Your task to perform on an android device: Check the weather Image 0: 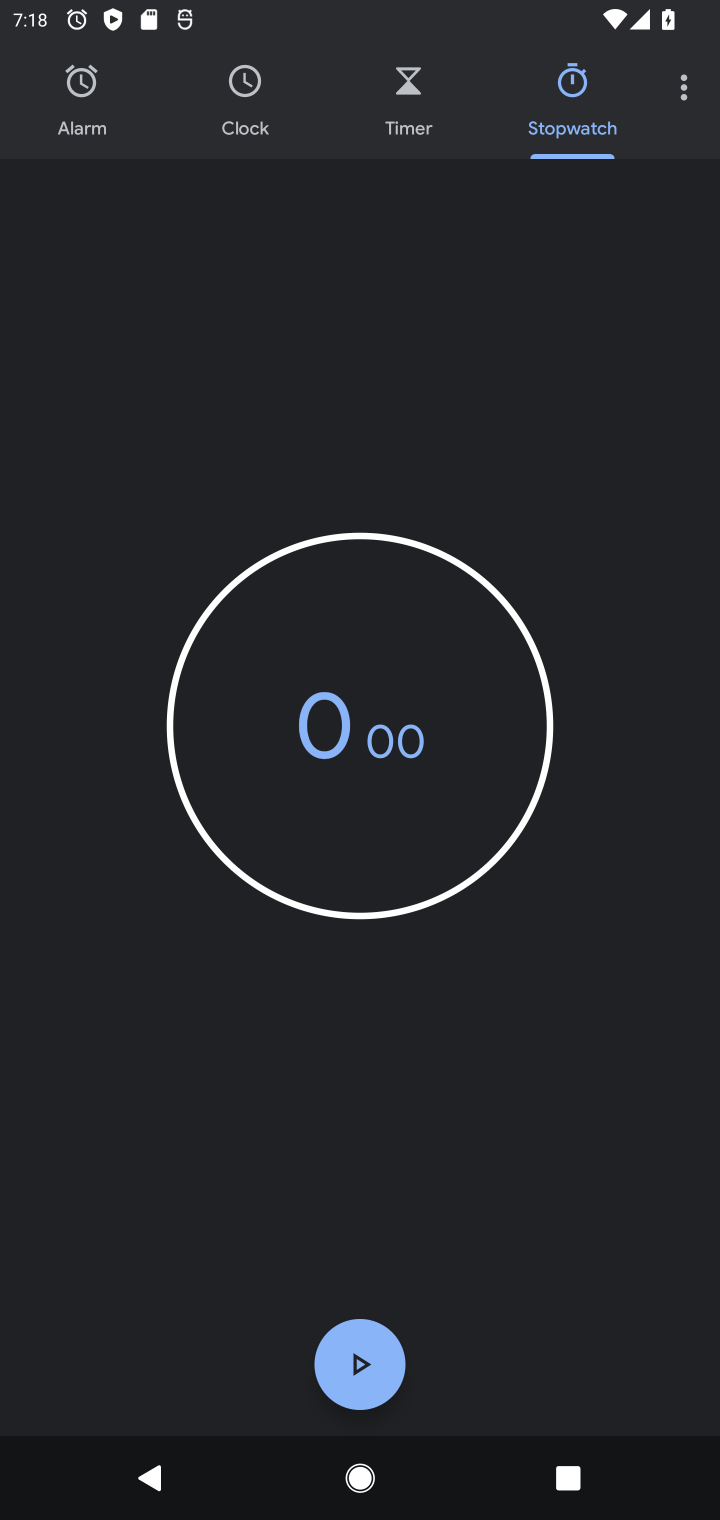
Step 0: press home button
Your task to perform on an android device: Check the weather Image 1: 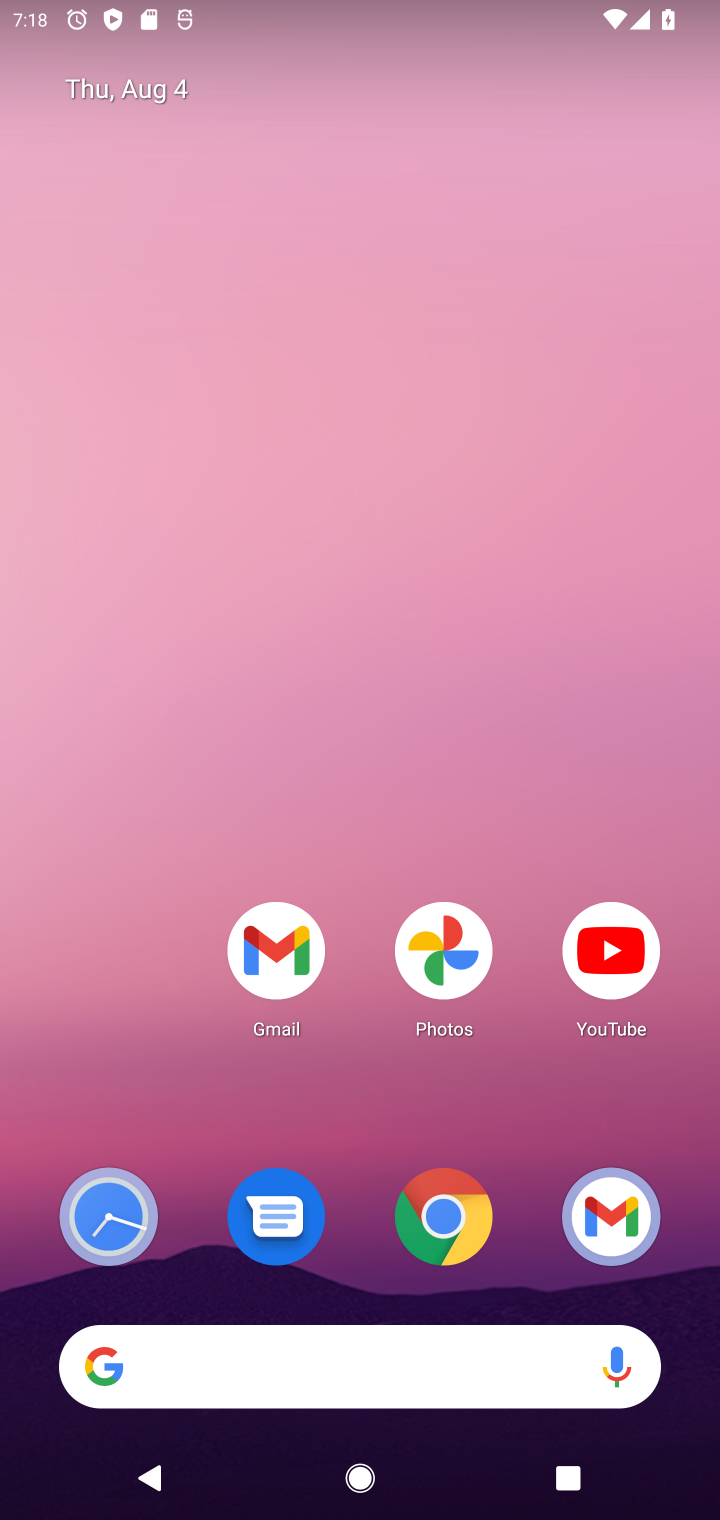
Step 1: click (398, 1353)
Your task to perform on an android device: Check the weather Image 2: 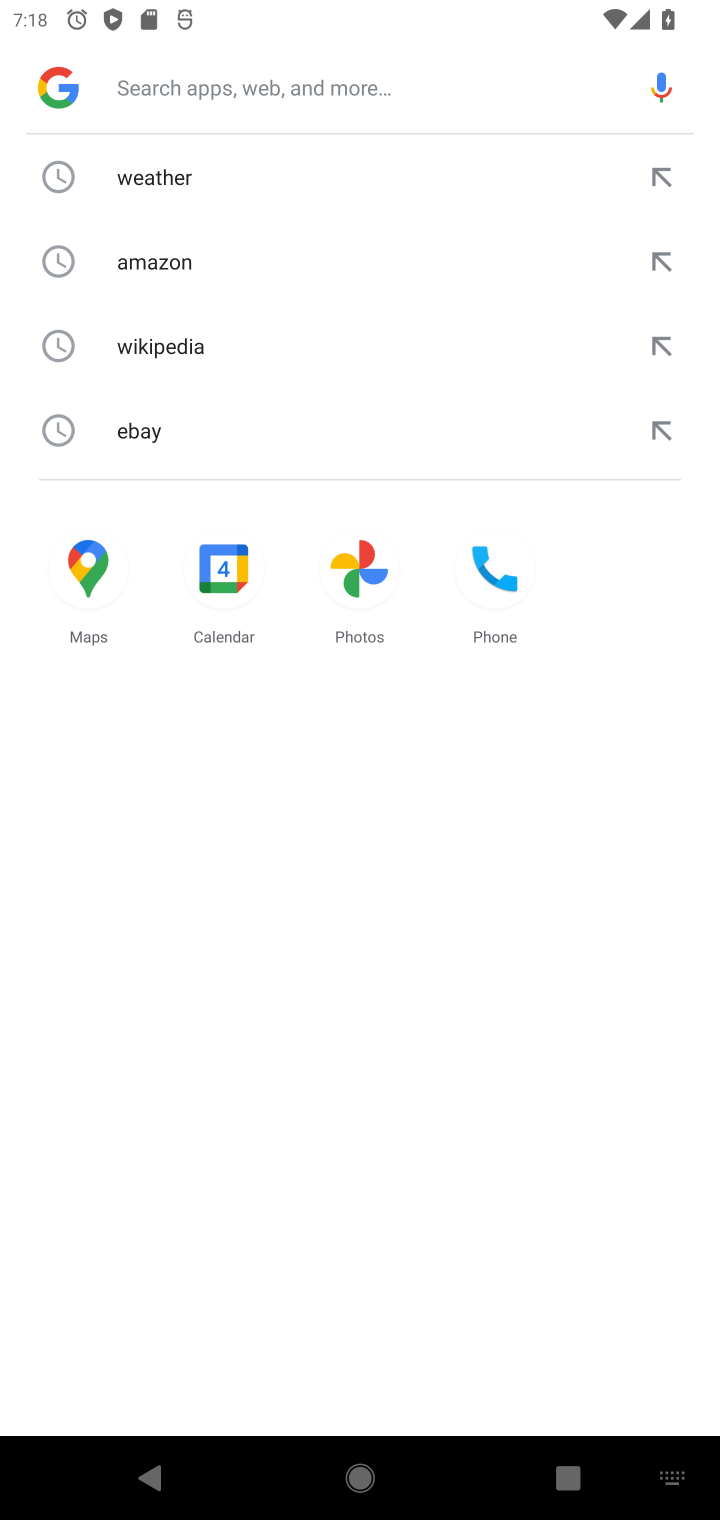
Step 2: click (268, 165)
Your task to perform on an android device: Check the weather Image 3: 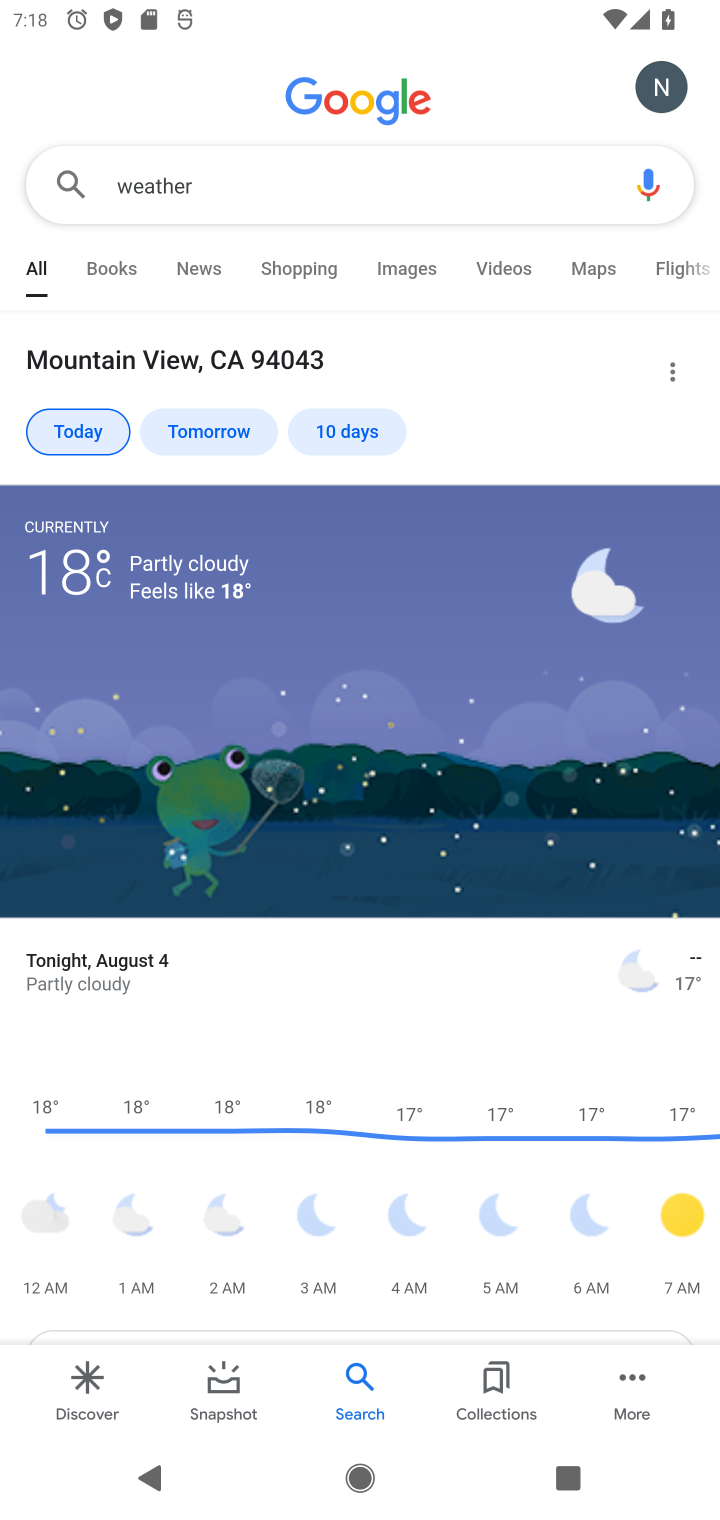
Step 3: task complete